Your task to perform on an android device: Open the calendar and show me this week's events Image 0: 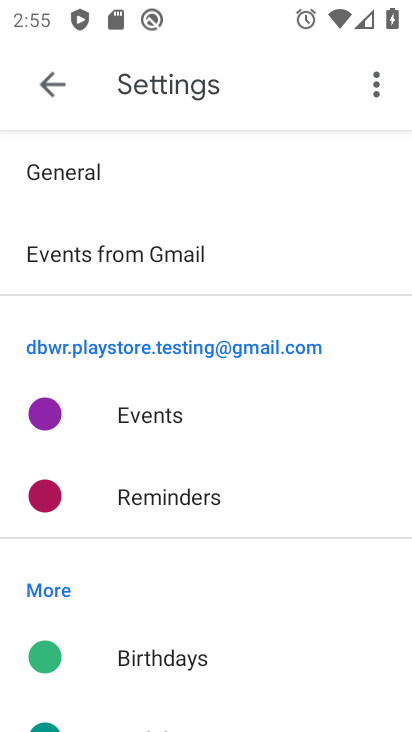
Step 0: press home button
Your task to perform on an android device: Open the calendar and show me this week's events Image 1: 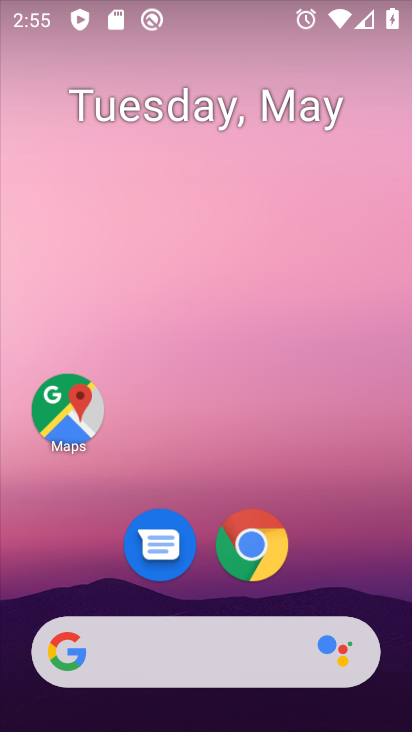
Step 1: drag from (231, 636) to (26, 9)
Your task to perform on an android device: Open the calendar and show me this week's events Image 2: 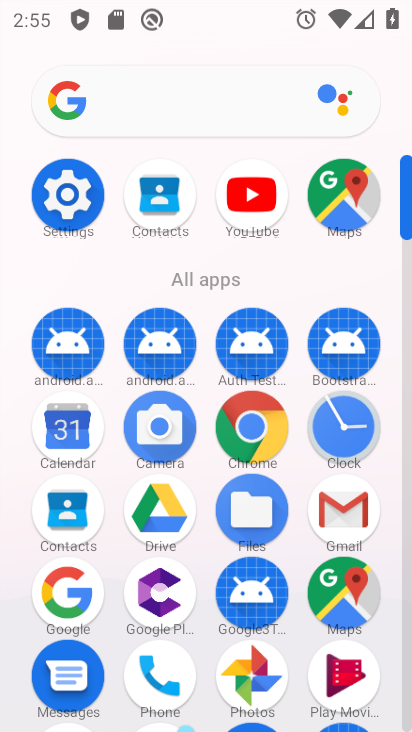
Step 2: click (67, 431)
Your task to perform on an android device: Open the calendar and show me this week's events Image 3: 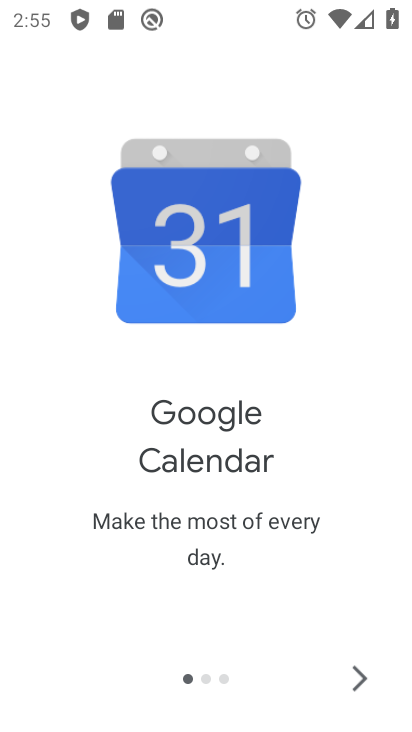
Step 3: click (67, 431)
Your task to perform on an android device: Open the calendar and show me this week's events Image 4: 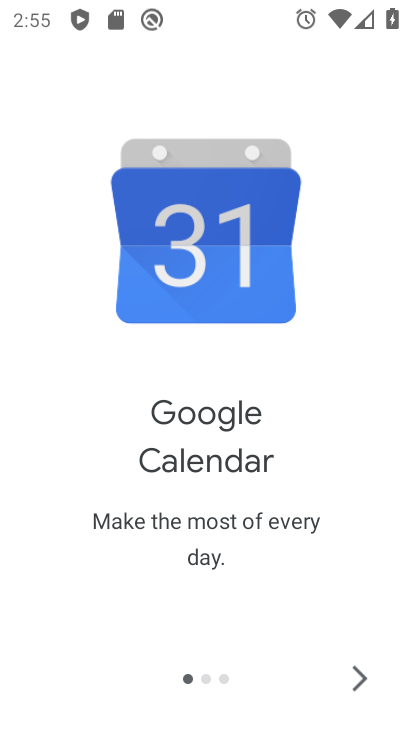
Step 4: click (357, 682)
Your task to perform on an android device: Open the calendar and show me this week's events Image 5: 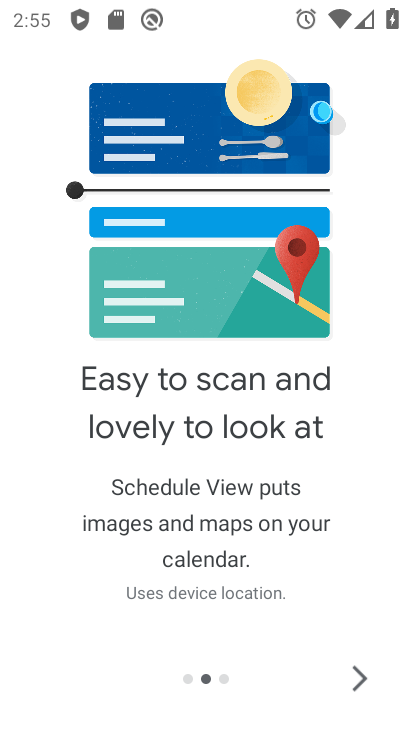
Step 5: click (356, 681)
Your task to perform on an android device: Open the calendar and show me this week's events Image 6: 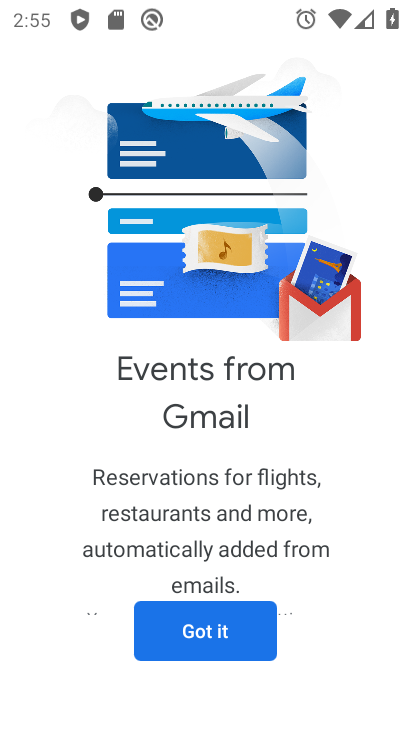
Step 6: click (242, 634)
Your task to perform on an android device: Open the calendar and show me this week's events Image 7: 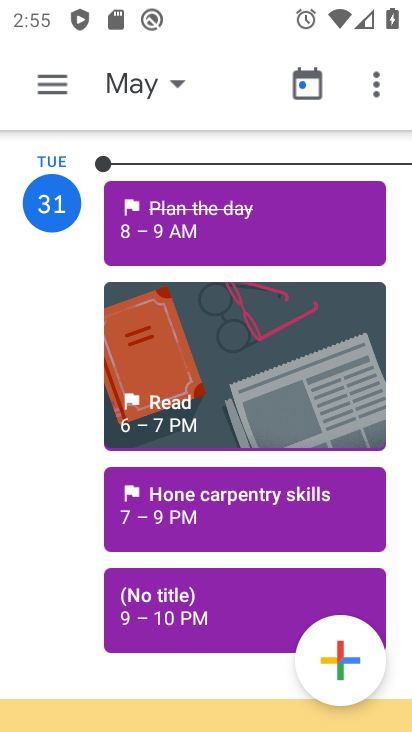
Step 7: click (56, 96)
Your task to perform on an android device: Open the calendar and show me this week's events Image 8: 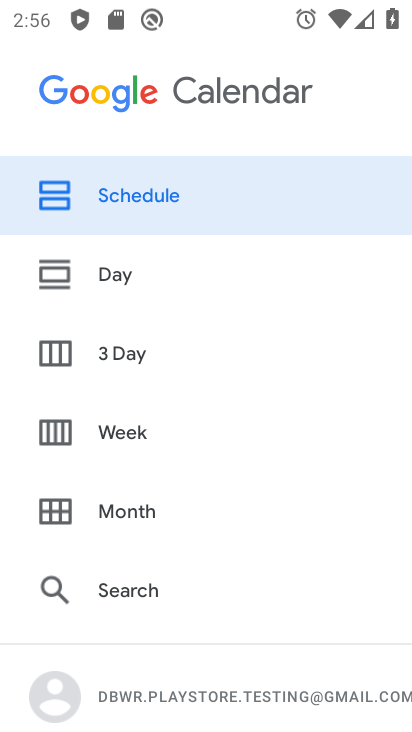
Step 8: click (159, 410)
Your task to perform on an android device: Open the calendar and show me this week's events Image 9: 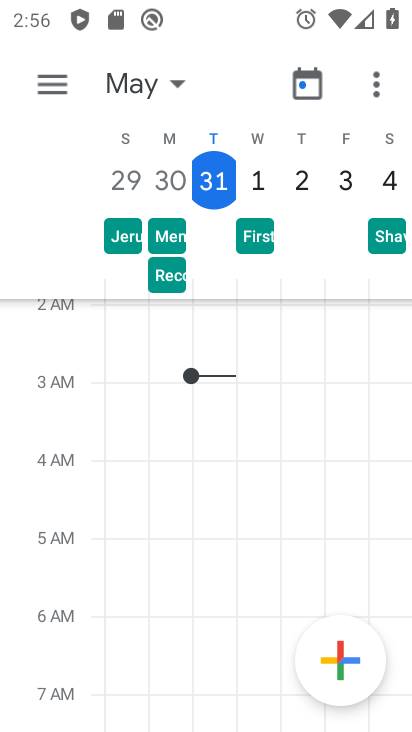
Step 9: task complete